Your task to perform on an android device: delete browsing data in the chrome app Image 0: 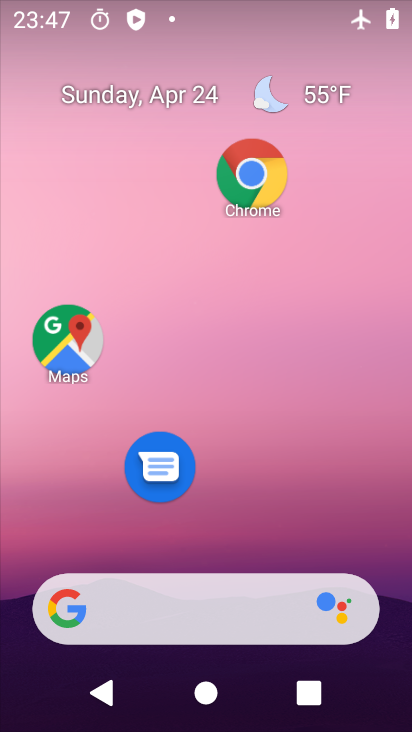
Step 0: drag from (231, 491) to (264, 82)
Your task to perform on an android device: delete browsing data in the chrome app Image 1: 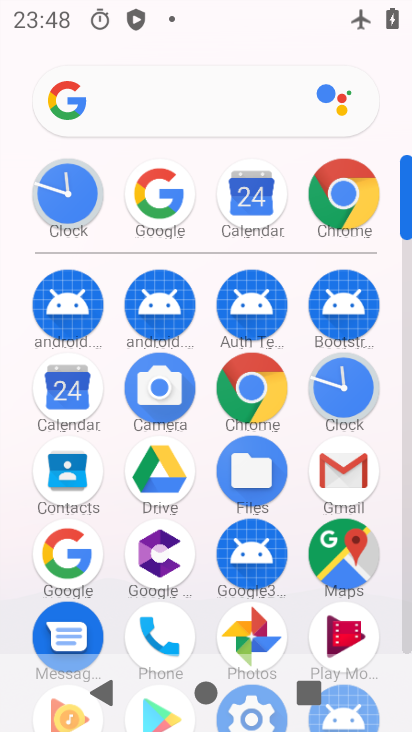
Step 1: click (341, 185)
Your task to perform on an android device: delete browsing data in the chrome app Image 2: 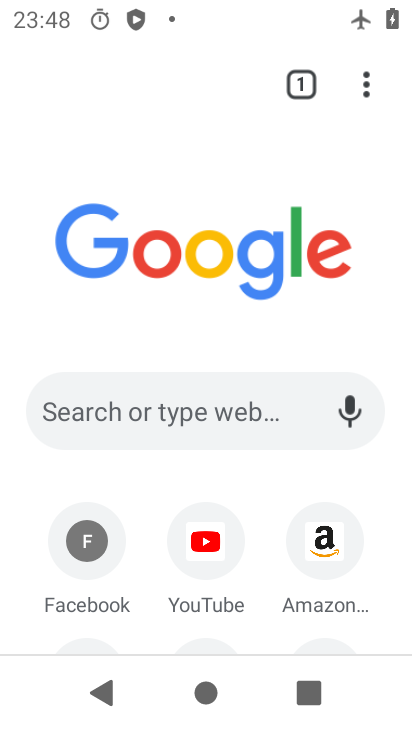
Step 2: click (364, 88)
Your task to perform on an android device: delete browsing data in the chrome app Image 3: 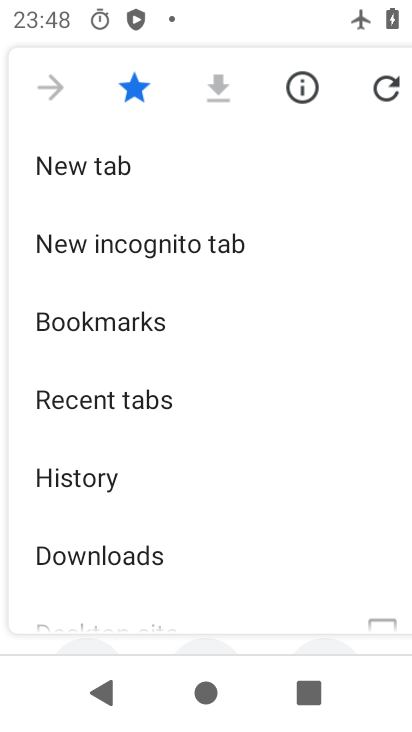
Step 3: drag from (299, 536) to (287, 124)
Your task to perform on an android device: delete browsing data in the chrome app Image 4: 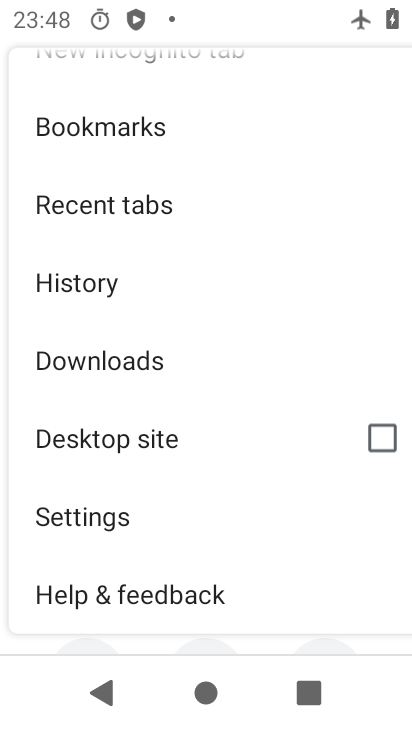
Step 4: click (111, 510)
Your task to perform on an android device: delete browsing data in the chrome app Image 5: 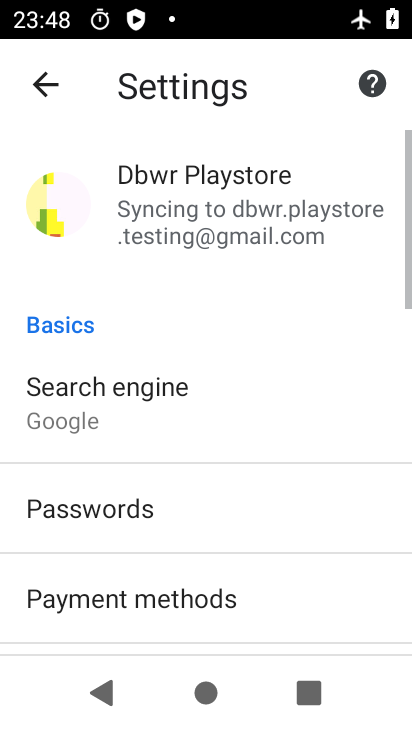
Step 5: drag from (230, 516) to (301, 113)
Your task to perform on an android device: delete browsing data in the chrome app Image 6: 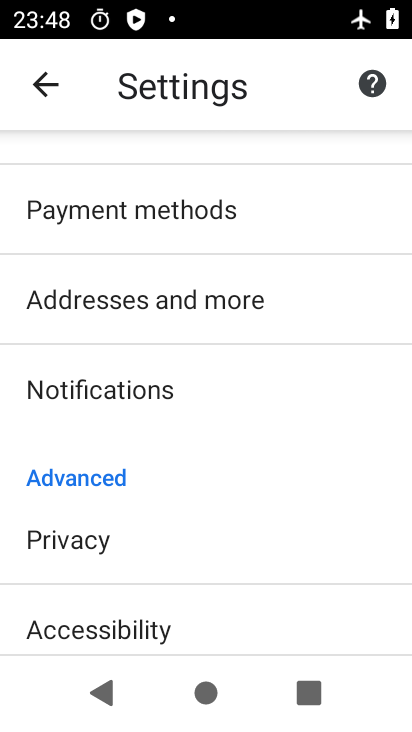
Step 6: click (95, 533)
Your task to perform on an android device: delete browsing data in the chrome app Image 7: 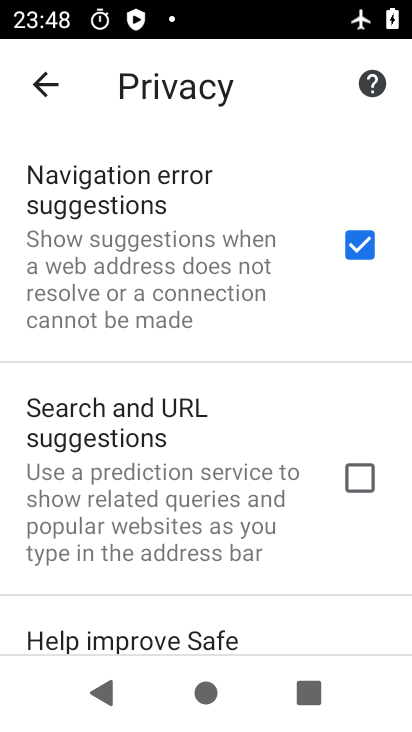
Step 7: drag from (187, 513) to (258, 153)
Your task to perform on an android device: delete browsing data in the chrome app Image 8: 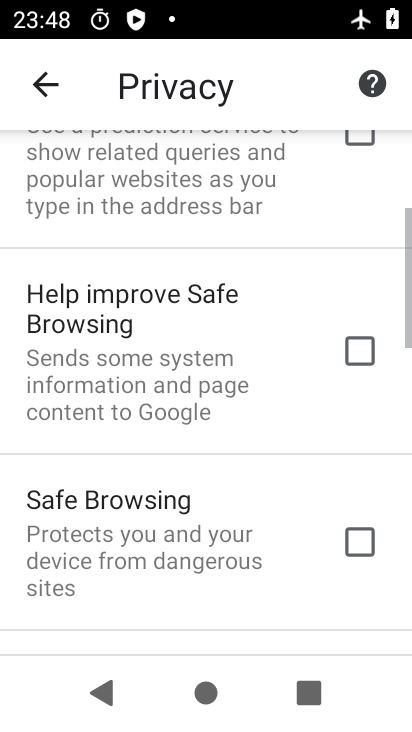
Step 8: drag from (173, 584) to (282, 100)
Your task to perform on an android device: delete browsing data in the chrome app Image 9: 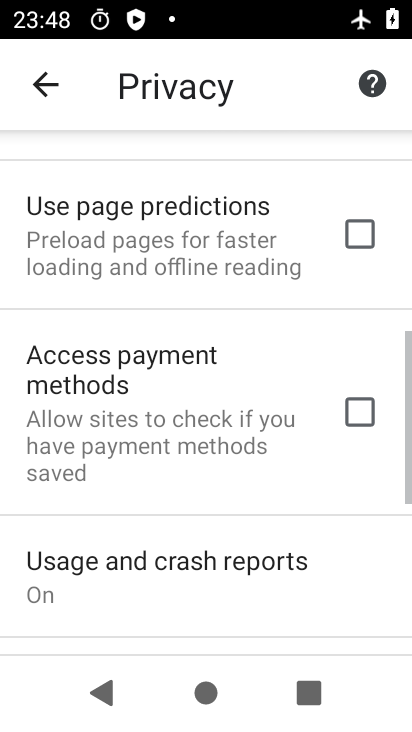
Step 9: drag from (194, 584) to (314, 9)
Your task to perform on an android device: delete browsing data in the chrome app Image 10: 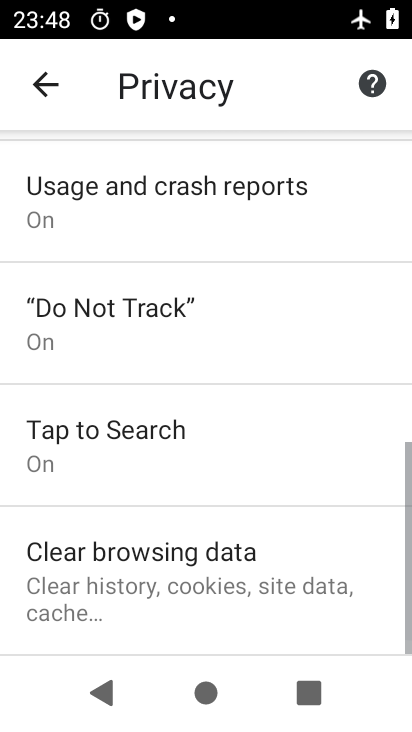
Step 10: click (169, 566)
Your task to perform on an android device: delete browsing data in the chrome app Image 11: 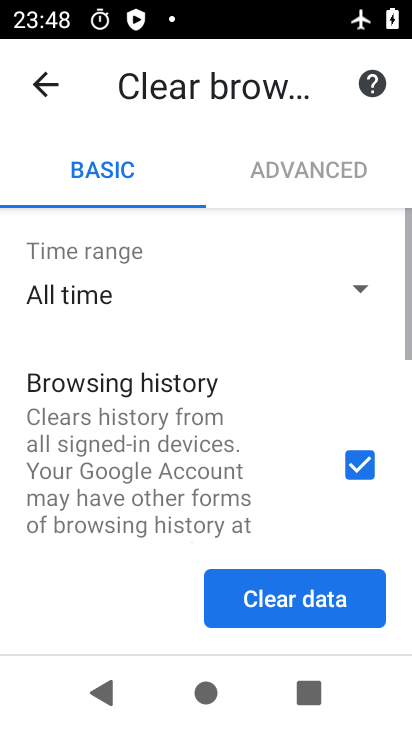
Step 11: drag from (286, 431) to (275, 203)
Your task to perform on an android device: delete browsing data in the chrome app Image 12: 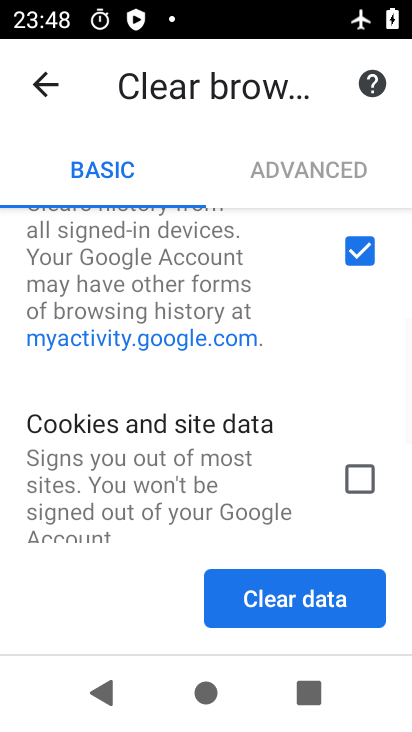
Step 12: drag from (284, 462) to (292, 180)
Your task to perform on an android device: delete browsing data in the chrome app Image 13: 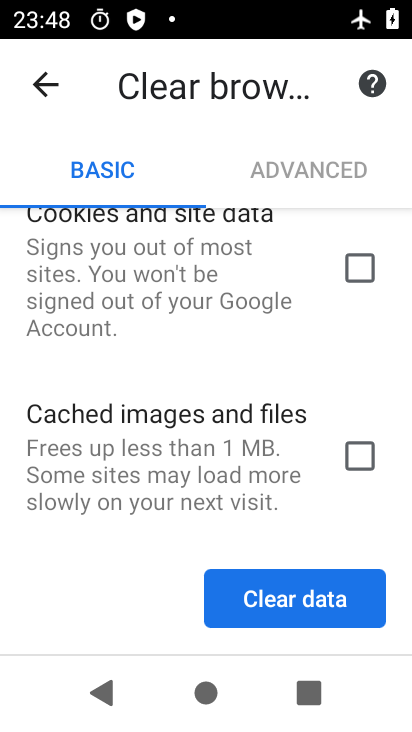
Step 13: click (300, 601)
Your task to perform on an android device: delete browsing data in the chrome app Image 14: 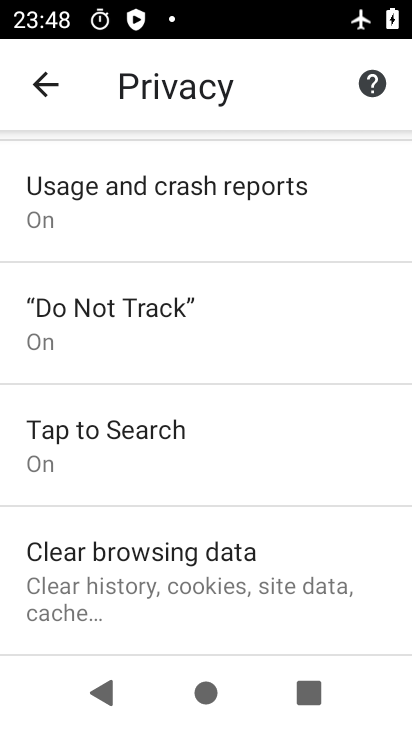
Step 14: task complete